Your task to perform on an android device: toggle translation in the chrome app Image 0: 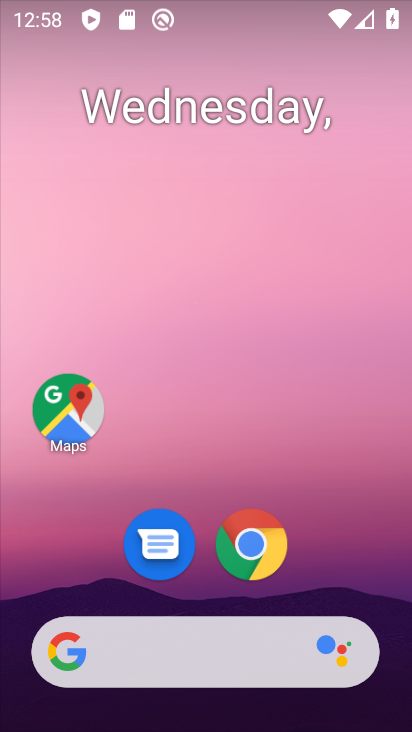
Step 0: click (340, 563)
Your task to perform on an android device: toggle translation in the chrome app Image 1: 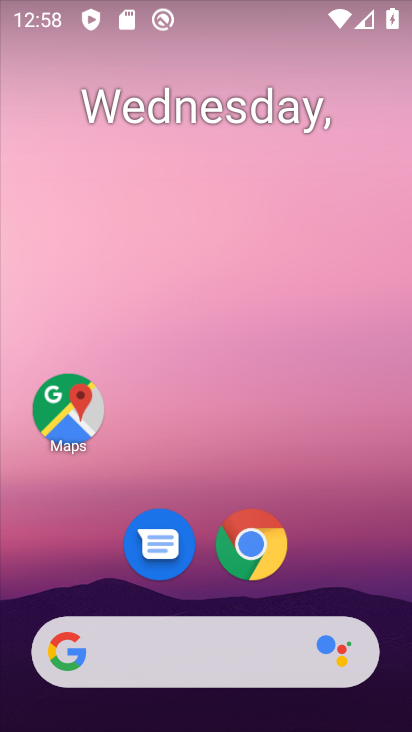
Step 1: click (258, 551)
Your task to perform on an android device: toggle translation in the chrome app Image 2: 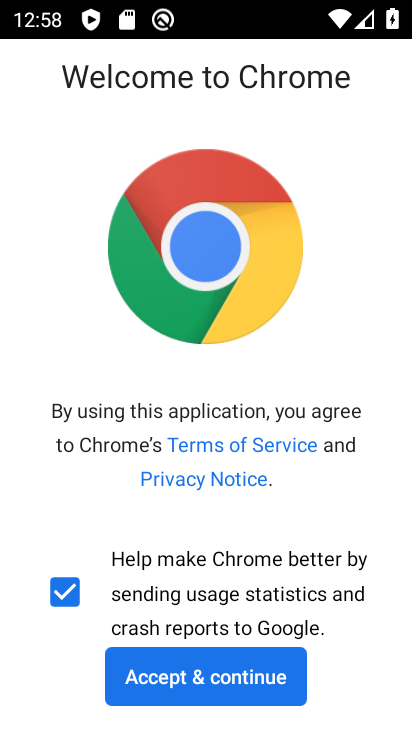
Step 2: click (249, 669)
Your task to perform on an android device: toggle translation in the chrome app Image 3: 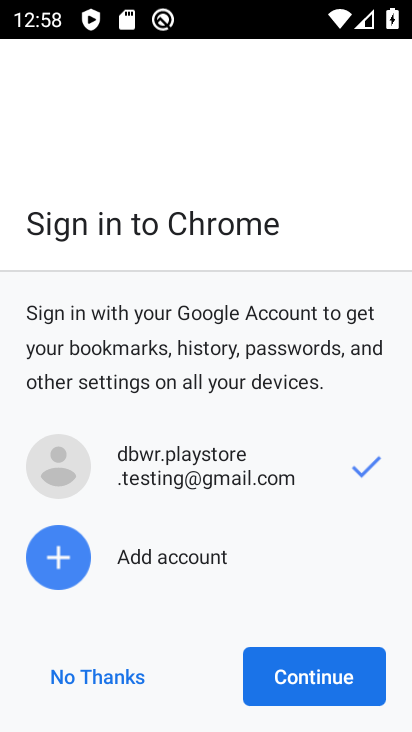
Step 3: click (320, 670)
Your task to perform on an android device: toggle translation in the chrome app Image 4: 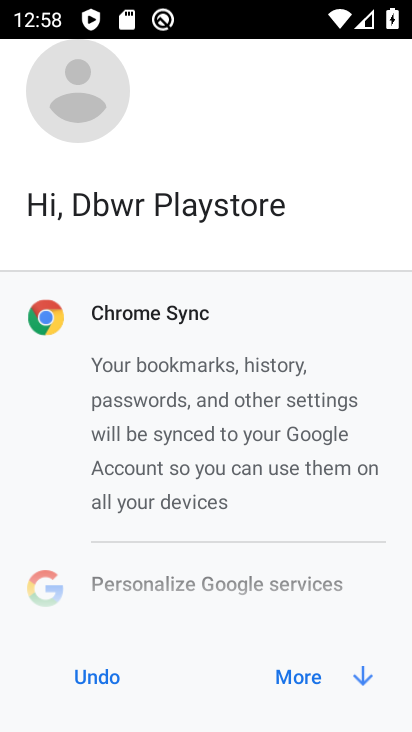
Step 4: click (320, 670)
Your task to perform on an android device: toggle translation in the chrome app Image 5: 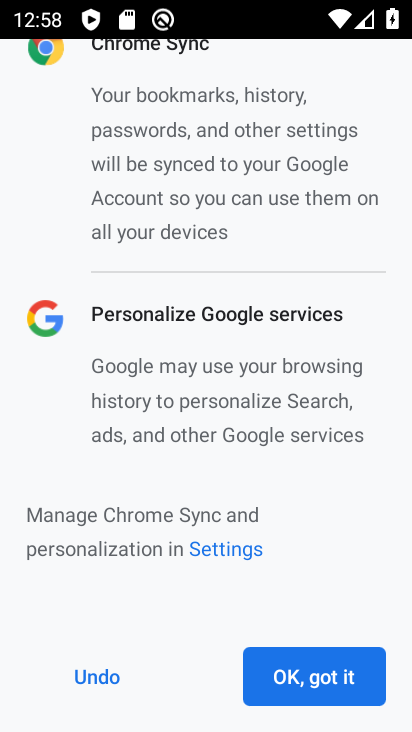
Step 5: click (320, 670)
Your task to perform on an android device: toggle translation in the chrome app Image 6: 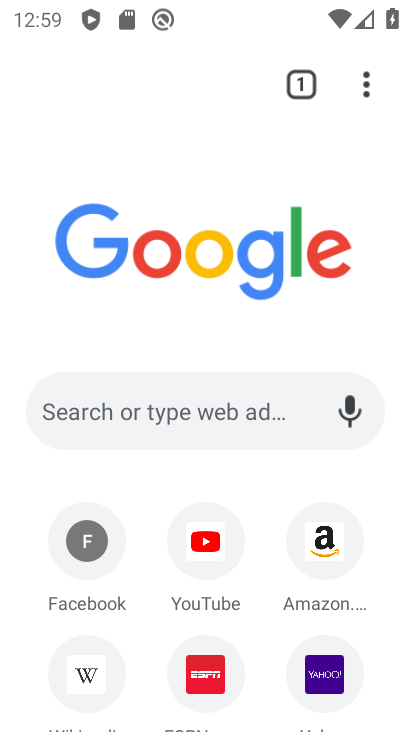
Step 6: click (367, 89)
Your task to perform on an android device: toggle translation in the chrome app Image 7: 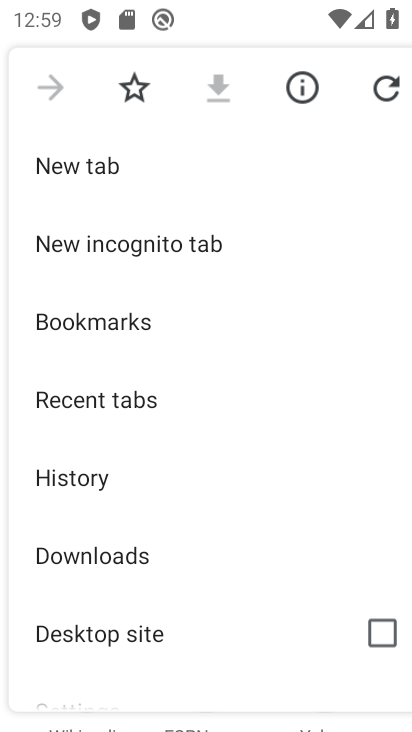
Step 7: drag from (172, 620) to (141, 346)
Your task to perform on an android device: toggle translation in the chrome app Image 8: 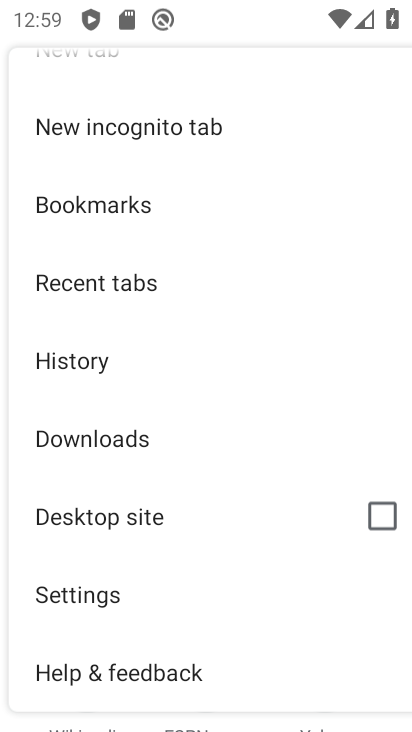
Step 8: click (94, 600)
Your task to perform on an android device: toggle translation in the chrome app Image 9: 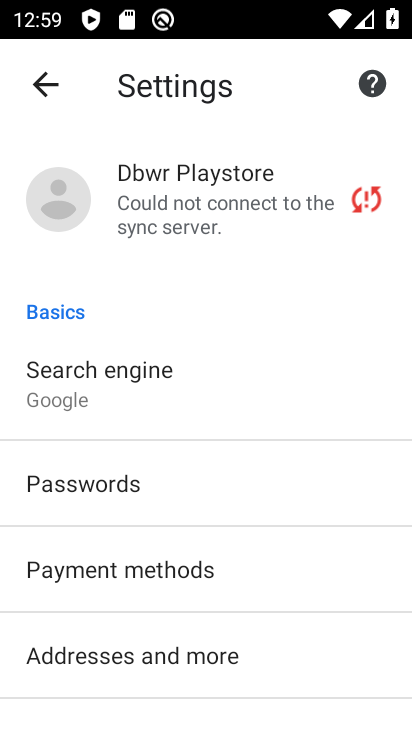
Step 9: drag from (256, 600) to (225, 235)
Your task to perform on an android device: toggle translation in the chrome app Image 10: 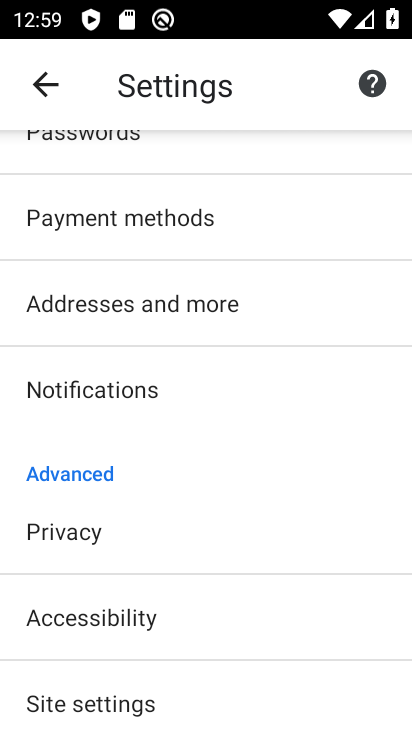
Step 10: drag from (222, 665) to (197, 394)
Your task to perform on an android device: toggle translation in the chrome app Image 11: 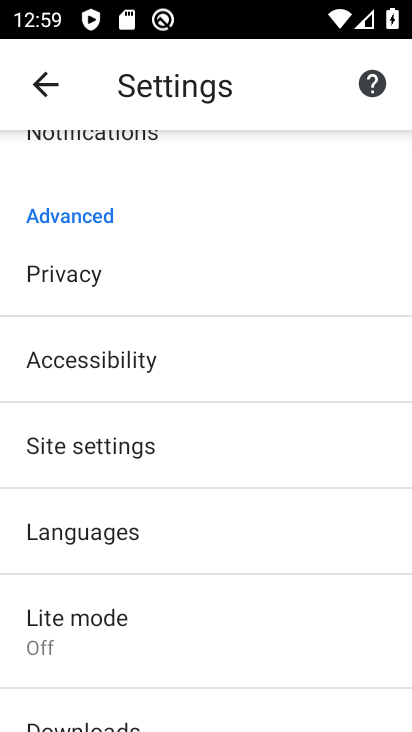
Step 11: click (120, 545)
Your task to perform on an android device: toggle translation in the chrome app Image 12: 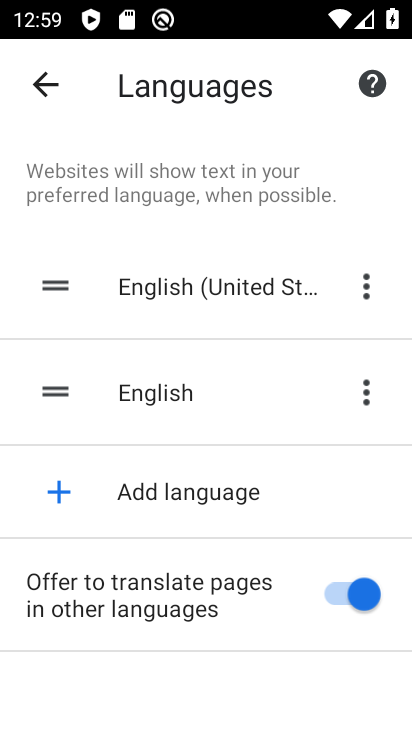
Step 12: click (326, 600)
Your task to perform on an android device: toggle translation in the chrome app Image 13: 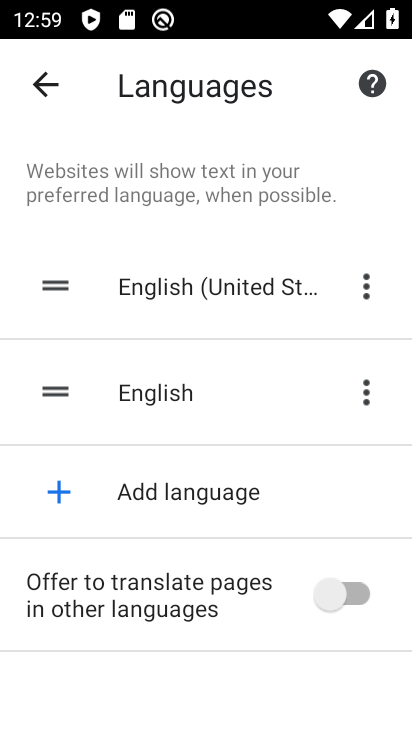
Step 13: task complete